Your task to perform on an android device: turn on javascript in the chrome app Image 0: 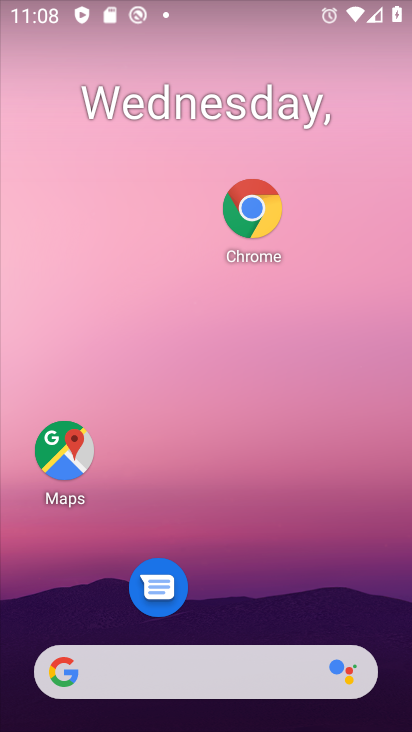
Step 0: click (235, 226)
Your task to perform on an android device: turn on javascript in the chrome app Image 1: 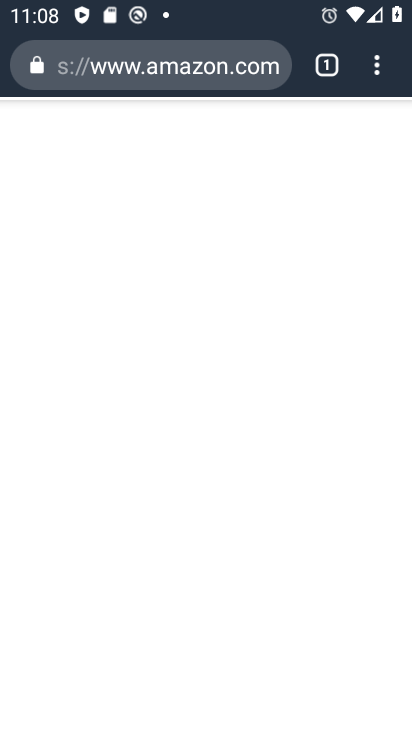
Step 1: click (377, 58)
Your task to perform on an android device: turn on javascript in the chrome app Image 2: 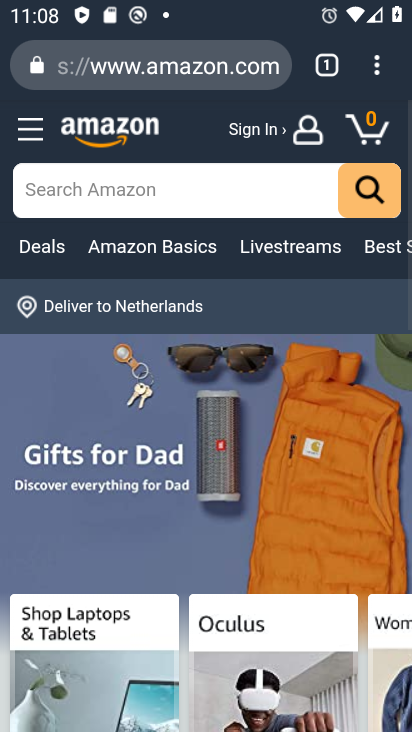
Step 2: click (375, 75)
Your task to perform on an android device: turn on javascript in the chrome app Image 3: 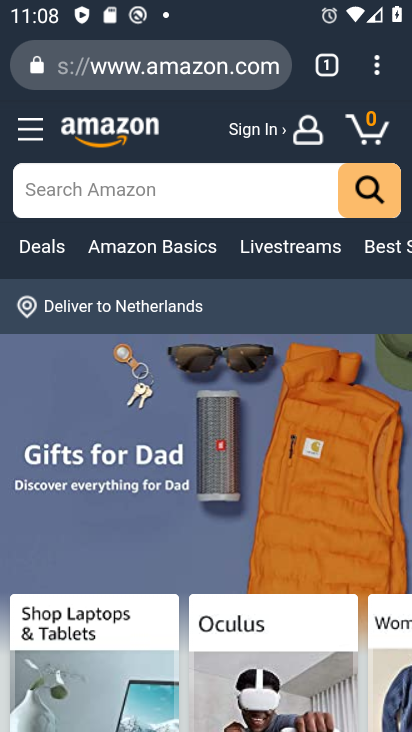
Step 3: click (382, 75)
Your task to perform on an android device: turn on javascript in the chrome app Image 4: 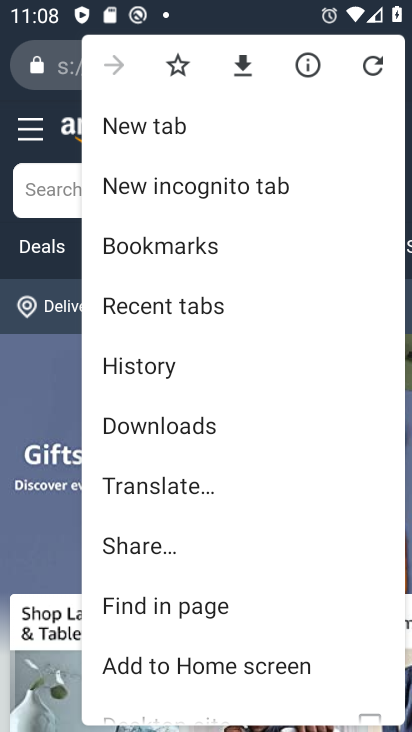
Step 4: drag from (208, 607) to (199, 277)
Your task to perform on an android device: turn on javascript in the chrome app Image 5: 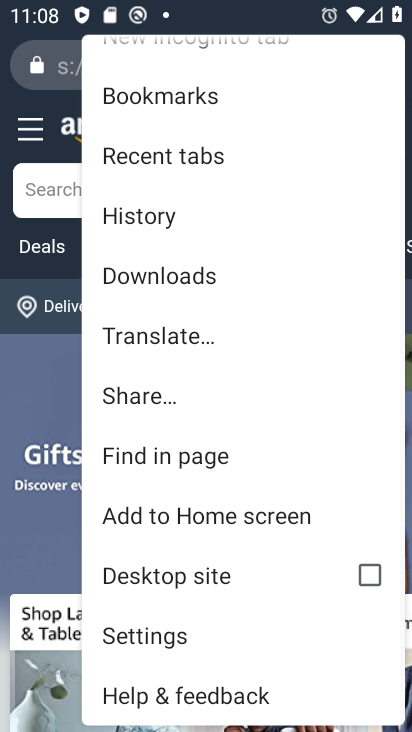
Step 5: click (146, 644)
Your task to perform on an android device: turn on javascript in the chrome app Image 6: 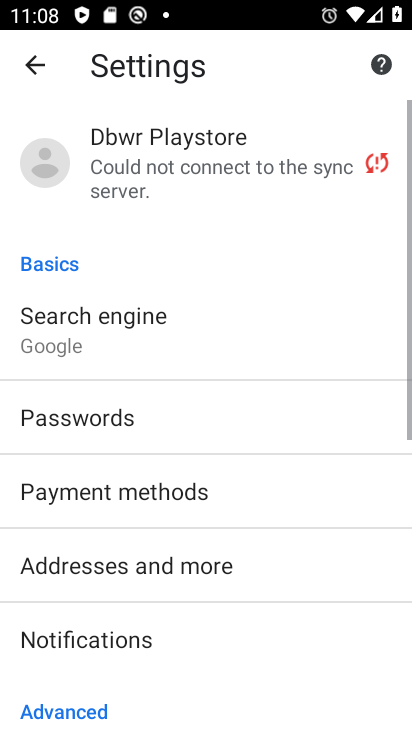
Step 6: drag from (184, 665) to (181, 270)
Your task to perform on an android device: turn on javascript in the chrome app Image 7: 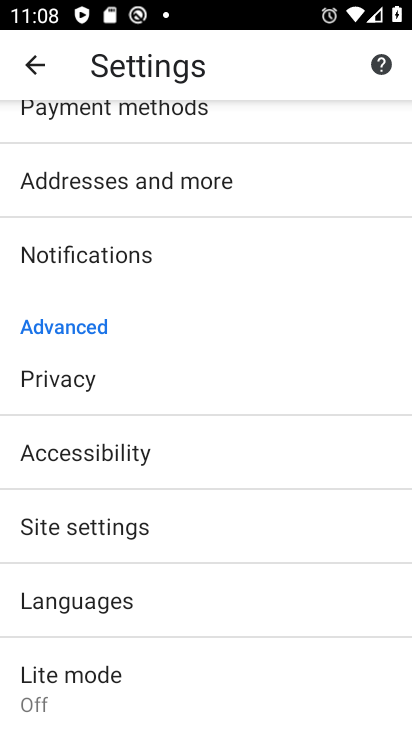
Step 7: click (117, 538)
Your task to perform on an android device: turn on javascript in the chrome app Image 8: 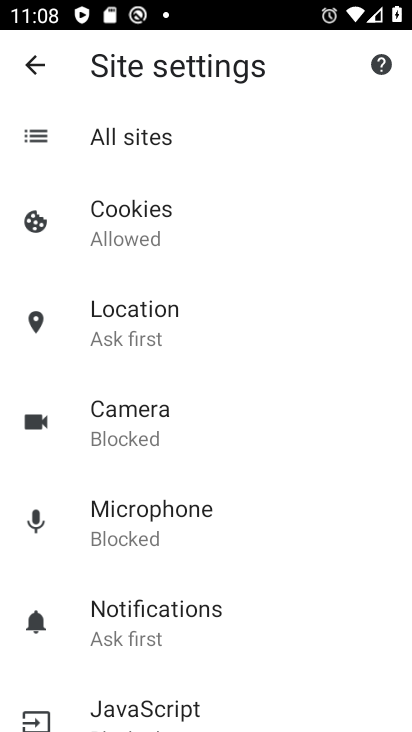
Step 8: click (122, 729)
Your task to perform on an android device: turn on javascript in the chrome app Image 9: 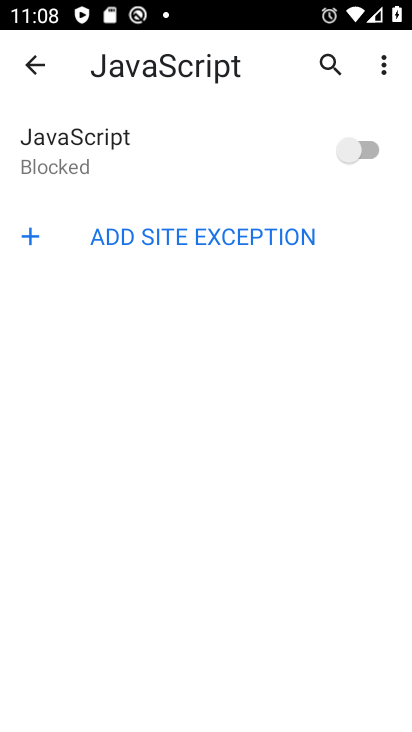
Step 9: click (361, 158)
Your task to perform on an android device: turn on javascript in the chrome app Image 10: 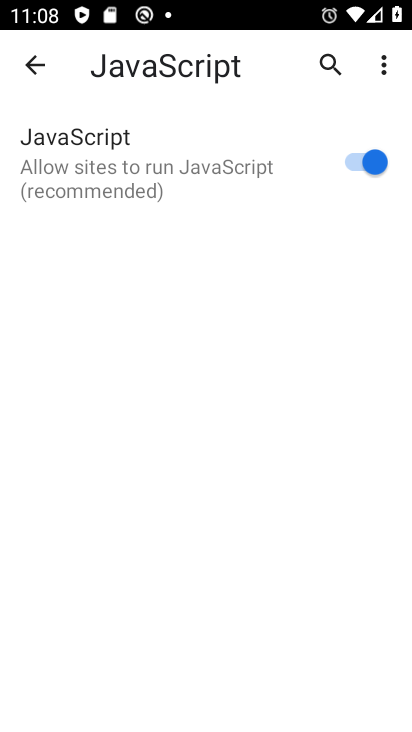
Step 10: task complete